Your task to perform on an android device: turn on javascript in the chrome app Image 0: 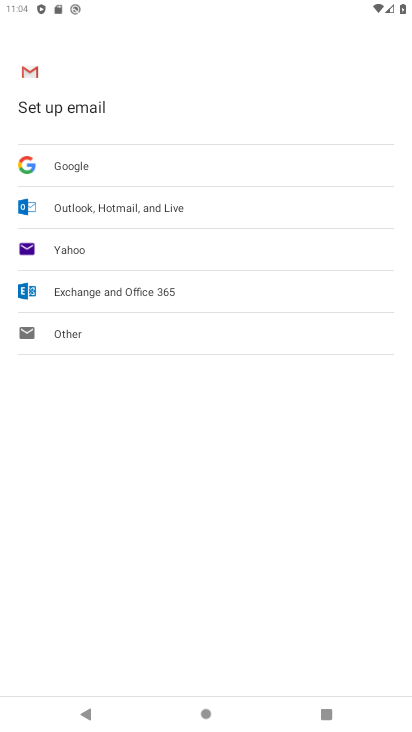
Step 0: press home button
Your task to perform on an android device: turn on javascript in the chrome app Image 1: 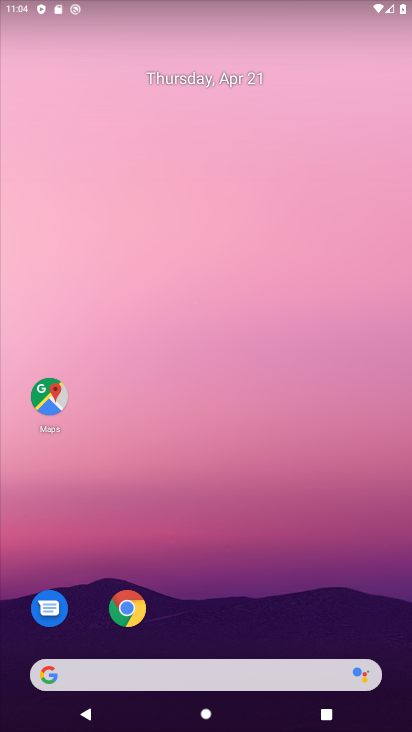
Step 1: click (128, 606)
Your task to perform on an android device: turn on javascript in the chrome app Image 2: 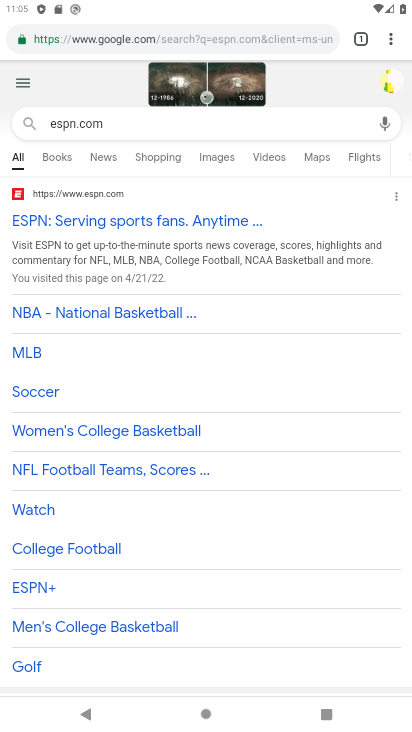
Step 2: click (390, 35)
Your task to perform on an android device: turn on javascript in the chrome app Image 3: 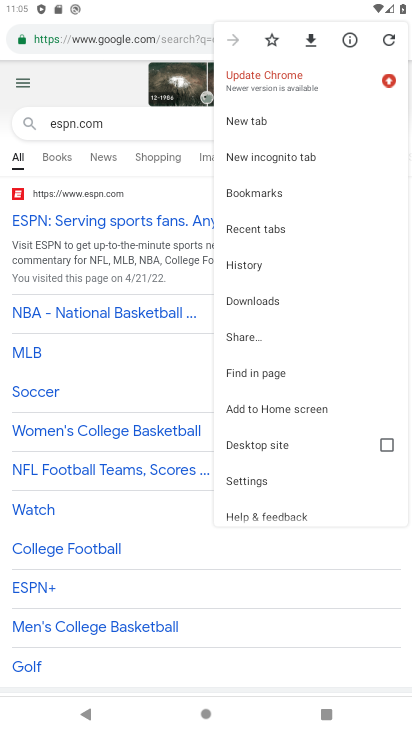
Step 3: click (275, 475)
Your task to perform on an android device: turn on javascript in the chrome app Image 4: 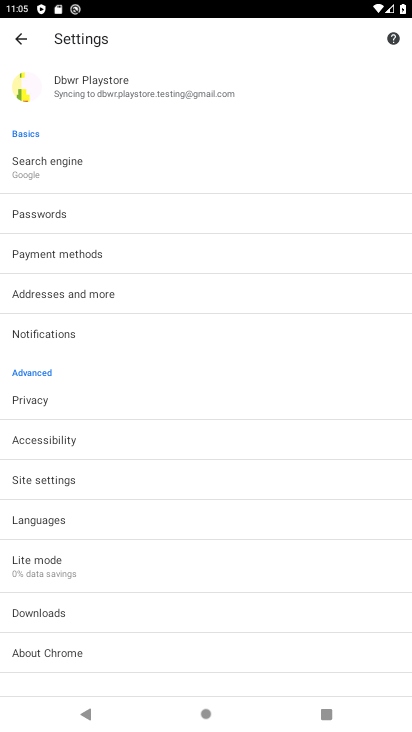
Step 4: click (60, 486)
Your task to perform on an android device: turn on javascript in the chrome app Image 5: 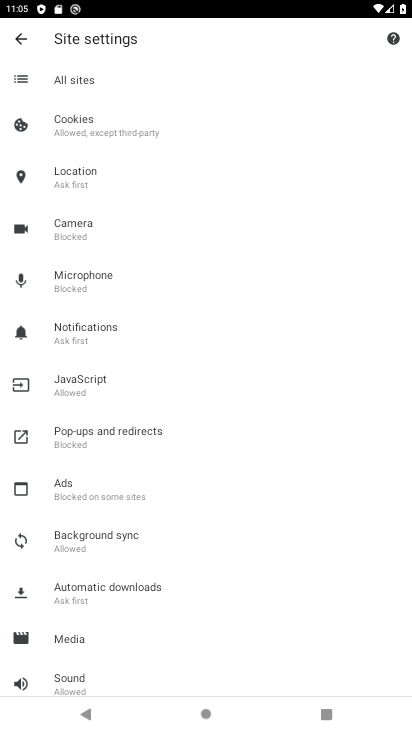
Step 5: click (83, 379)
Your task to perform on an android device: turn on javascript in the chrome app Image 6: 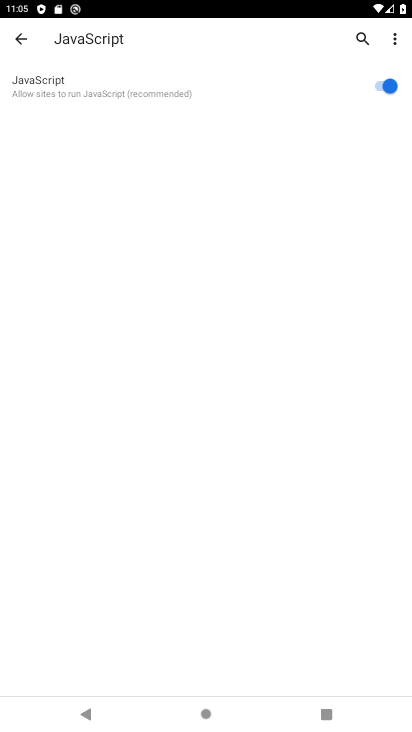
Step 6: task complete